Your task to perform on an android device: turn on bluetooth scan Image 0: 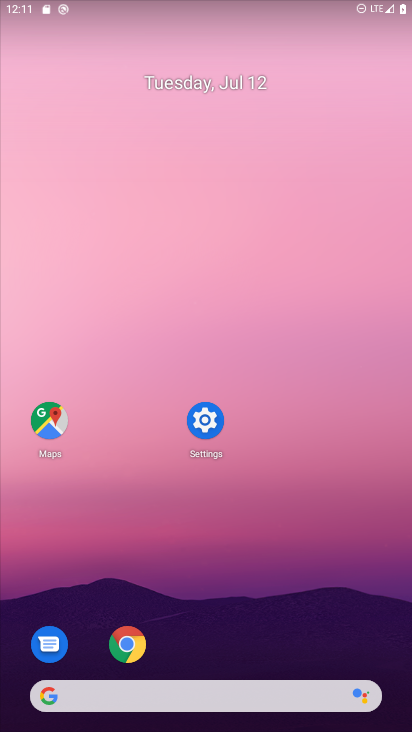
Step 0: click (200, 421)
Your task to perform on an android device: turn on bluetooth scan Image 1: 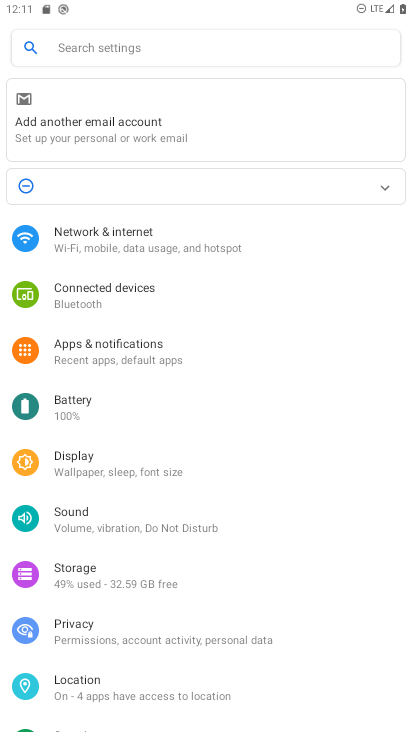
Step 1: click (79, 678)
Your task to perform on an android device: turn on bluetooth scan Image 2: 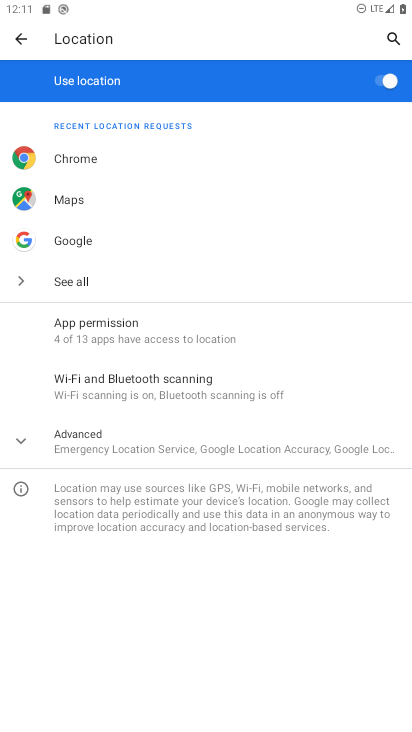
Step 2: click (130, 386)
Your task to perform on an android device: turn on bluetooth scan Image 3: 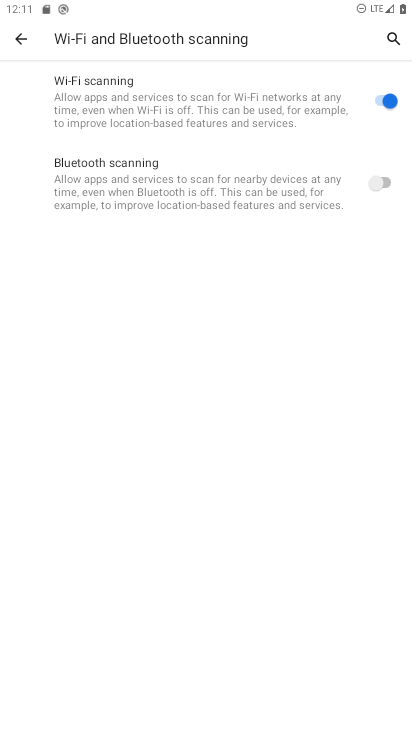
Step 3: click (380, 182)
Your task to perform on an android device: turn on bluetooth scan Image 4: 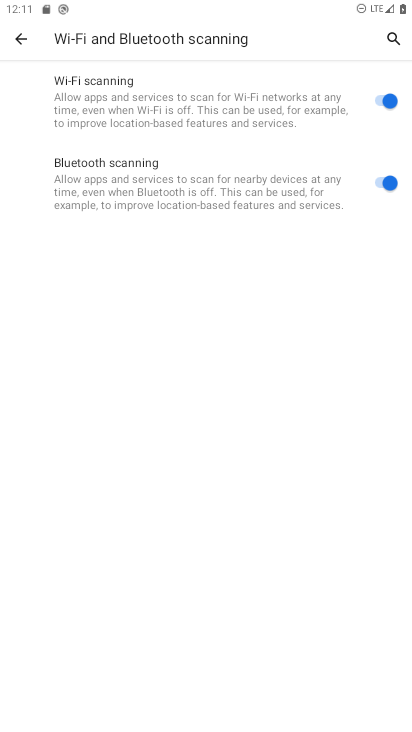
Step 4: task complete